Your task to perform on an android device: turn on translation in the chrome app Image 0: 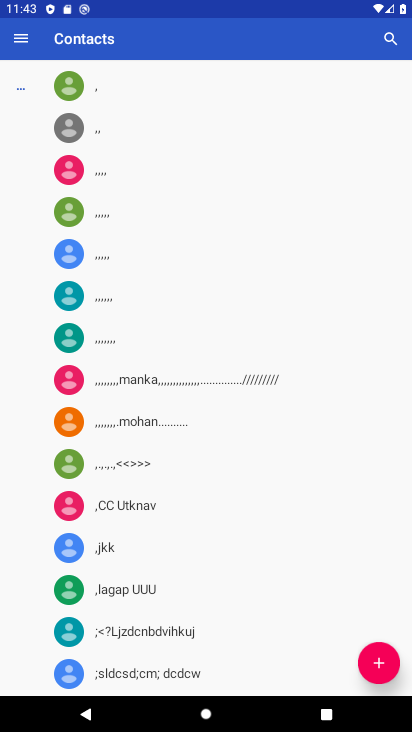
Step 0: press back button
Your task to perform on an android device: turn on translation in the chrome app Image 1: 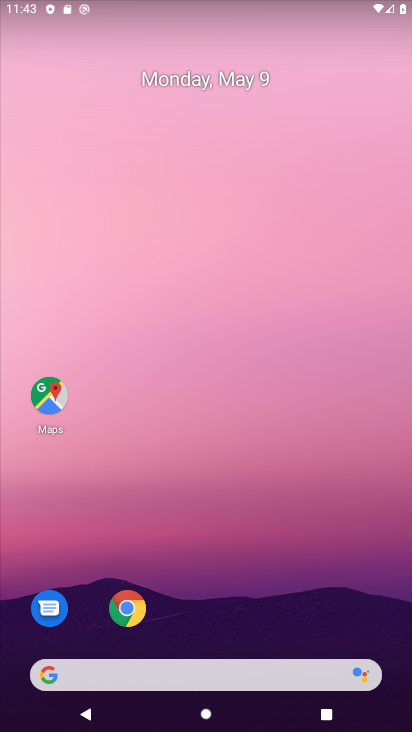
Step 1: drag from (220, 575) to (228, 1)
Your task to perform on an android device: turn on translation in the chrome app Image 2: 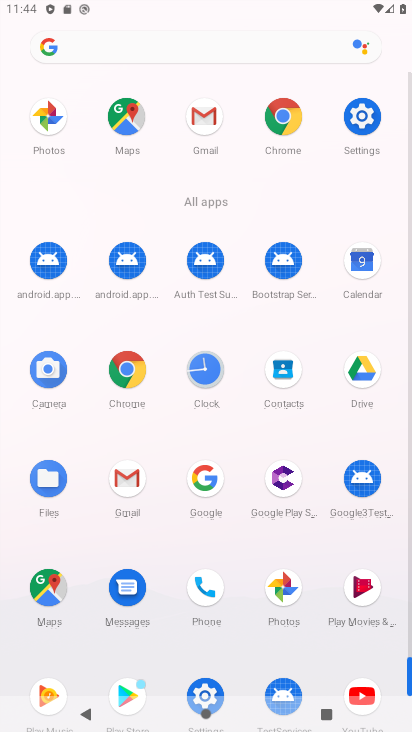
Step 2: click (125, 366)
Your task to perform on an android device: turn on translation in the chrome app Image 3: 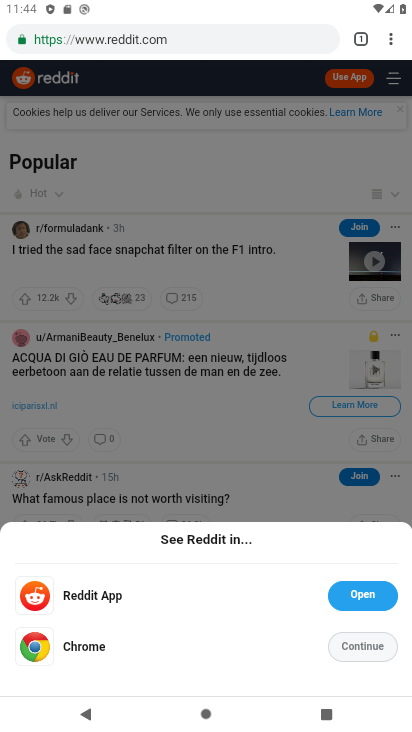
Step 3: drag from (391, 38) to (258, 472)
Your task to perform on an android device: turn on translation in the chrome app Image 4: 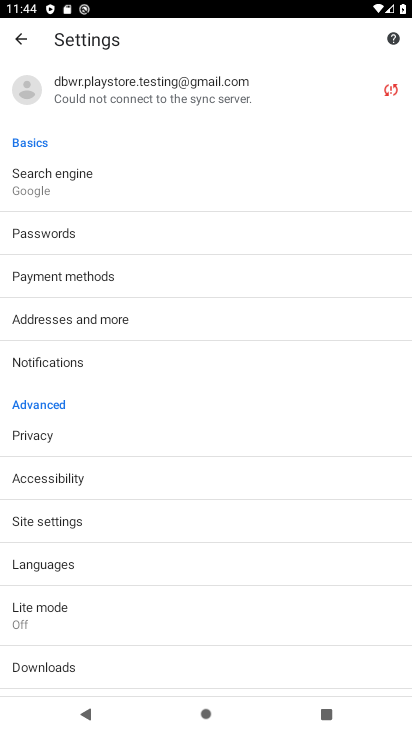
Step 4: click (84, 563)
Your task to perform on an android device: turn on translation in the chrome app Image 5: 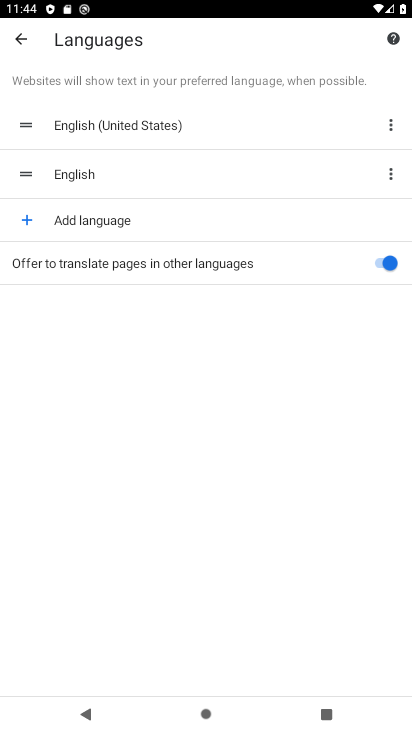
Step 5: task complete